Your task to perform on an android device: Go to Android settings Image 0: 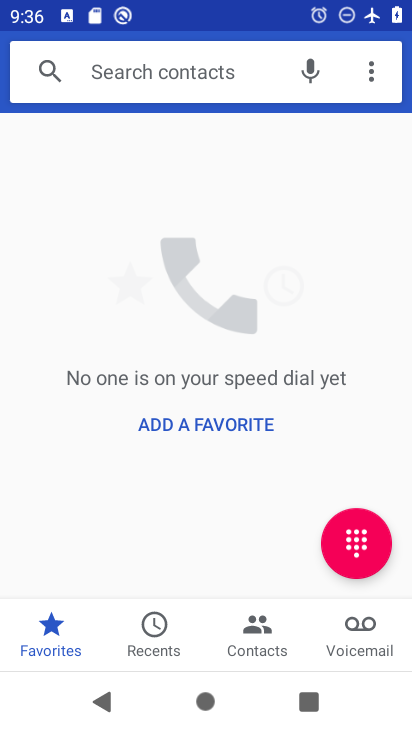
Step 0: press home button
Your task to perform on an android device: Go to Android settings Image 1: 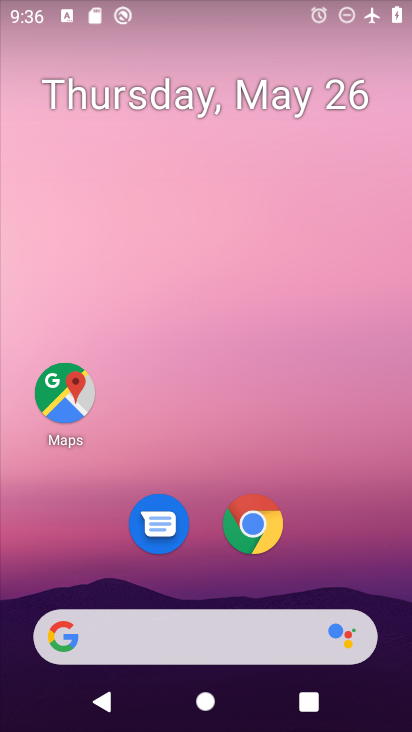
Step 1: drag from (306, 549) to (322, 3)
Your task to perform on an android device: Go to Android settings Image 2: 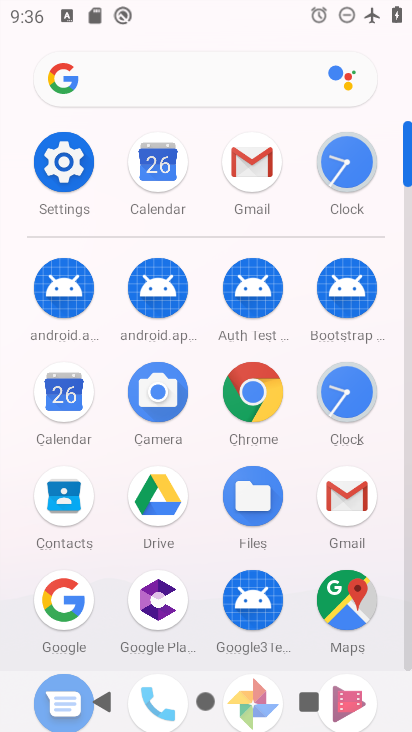
Step 2: click (73, 150)
Your task to perform on an android device: Go to Android settings Image 3: 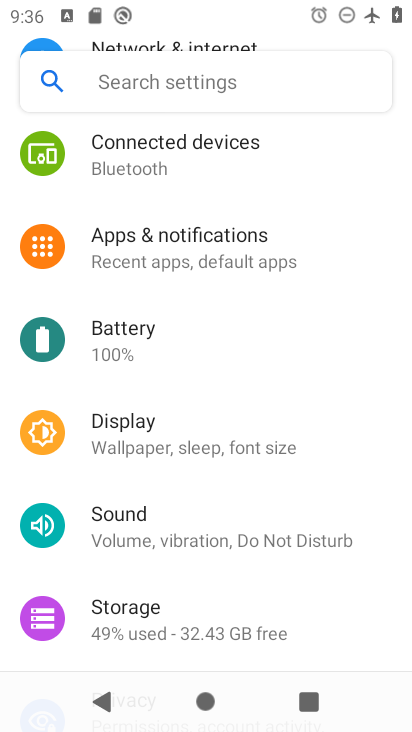
Step 3: drag from (163, 500) to (230, 131)
Your task to perform on an android device: Go to Android settings Image 4: 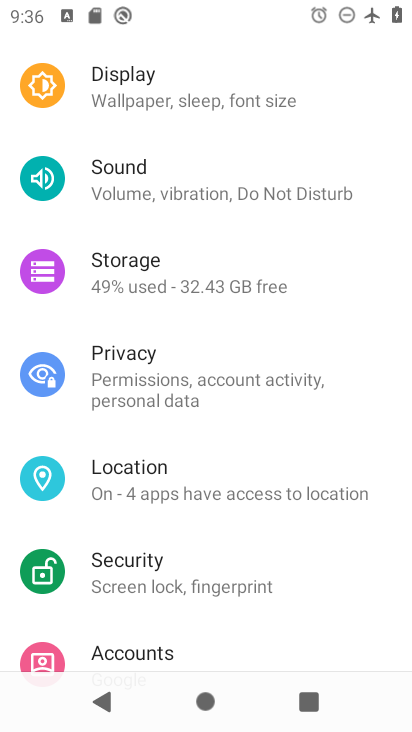
Step 4: drag from (243, 418) to (267, 52)
Your task to perform on an android device: Go to Android settings Image 5: 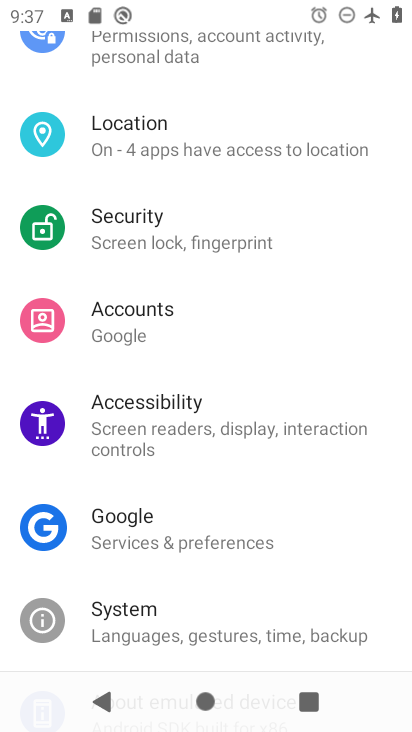
Step 5: drag from (199, 316) to (219, 65)
Your task to perform on an android device: Go to Android settings Image 6: 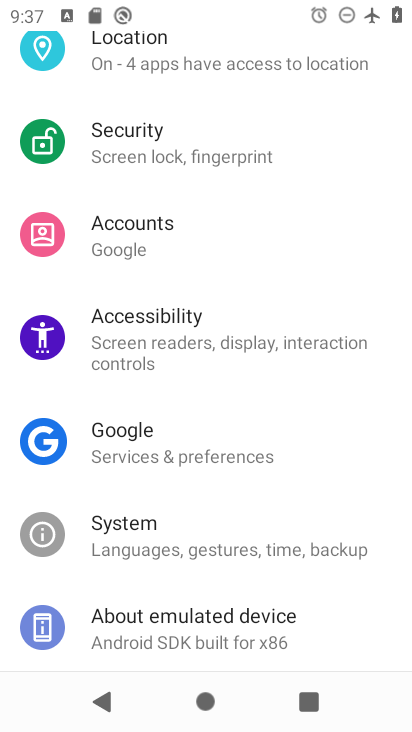
Step 6: click (187, 619)
Your task to perform on an android device: Go to Android settings Image 7: 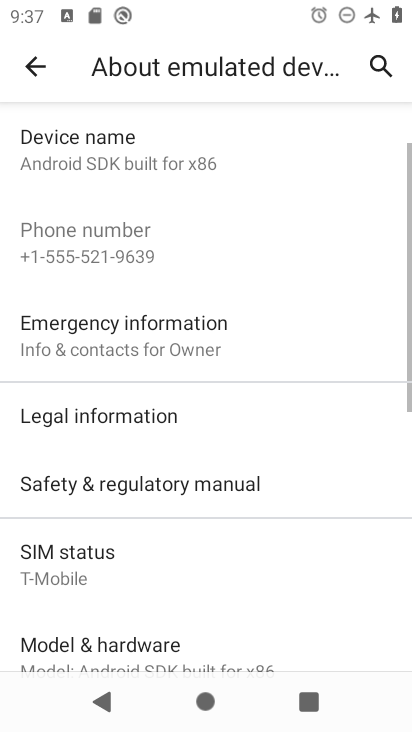
Step 7: task complete